Your task to perform on an android device: snooze an email in the gmail app Image 0: 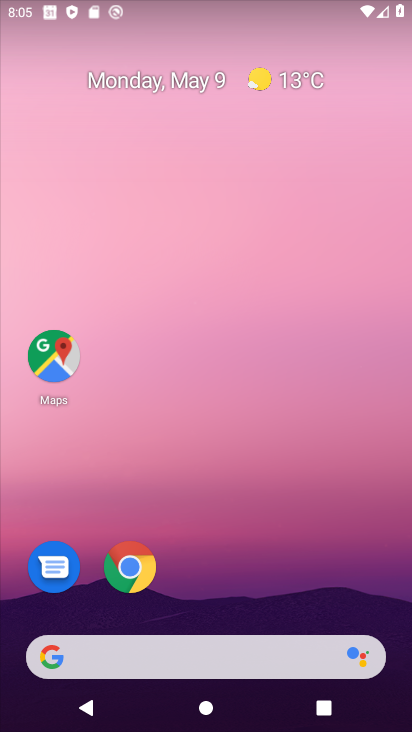
Step 0: drag from (251, 552) to (206, 47)
Your task to perform on an android device: snooze an email in the gmail app Image 1: 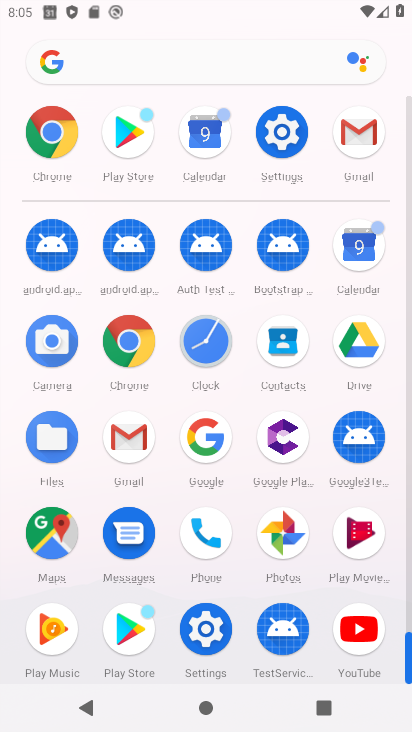
Step 1: click (360, 123)
Your task to perform on an android device: snooze an email in the gmail app Image 2: 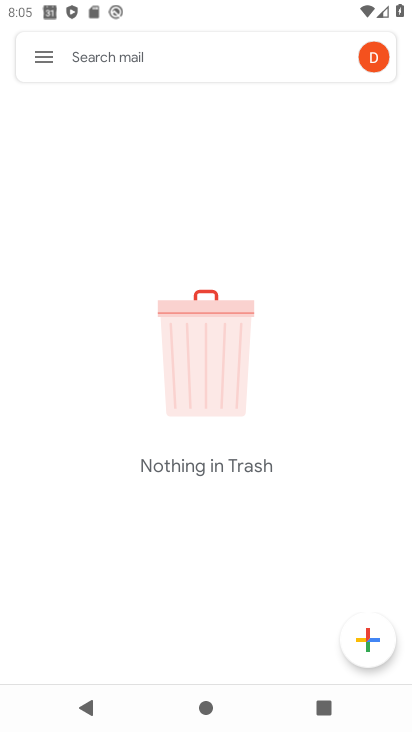
Step 2: click (51, 51)
Your task to perform on an android device: snooze an email in the gmail app Image 3: 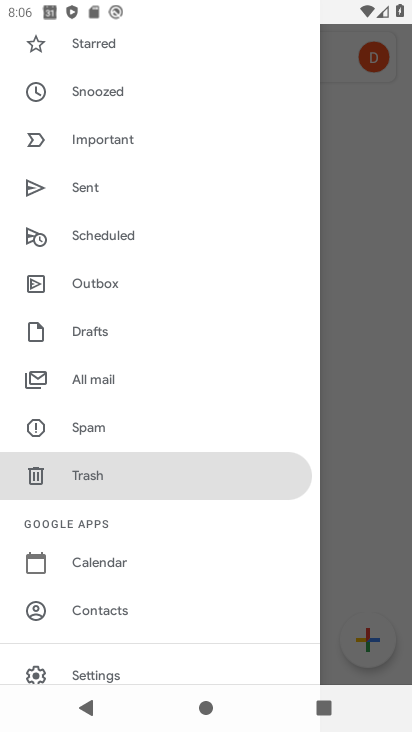
Step 3: click (136, 374)
Your task to perform on an android device: snooze an email in the gmail app Image 4: 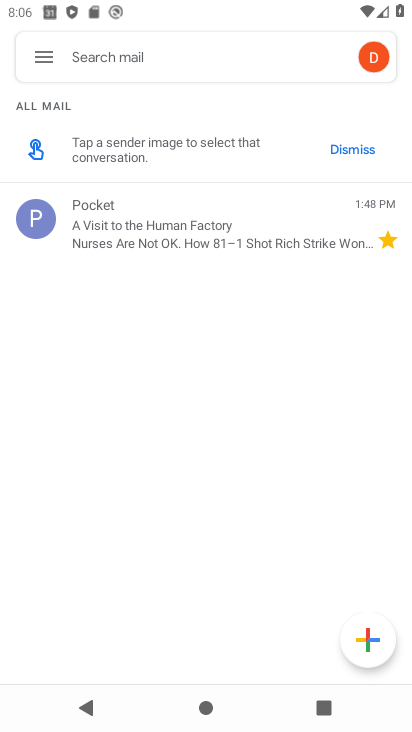
Step 4: click (231, 227)
Your task to perform on an android device: snooze an email in the gmail app Image 5: 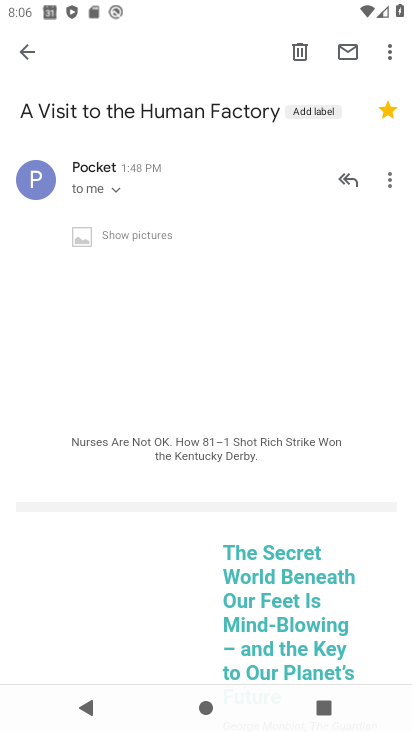
Step 5: click (389, 42)
Your task to perform on an android device: snooze an email in the gmail app Image 6: 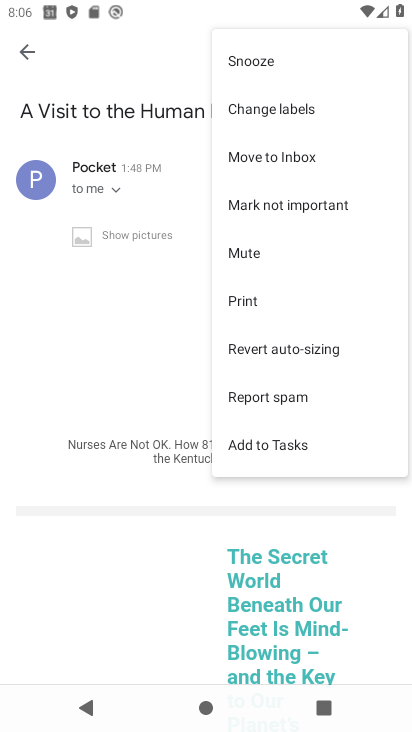
Step 6: click (296, 55)
Your task to perform on an android device: snooze an email in the gmail app Image 7: 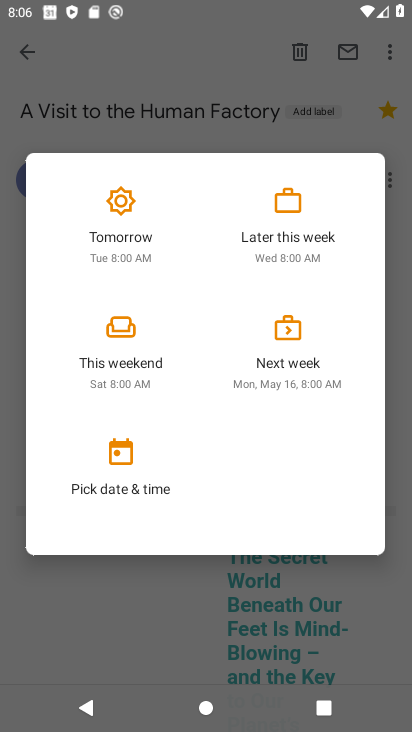
Step 7: click (134, 222)
Your task to perform on an android device: snooze an email in the gmail app Image 8: 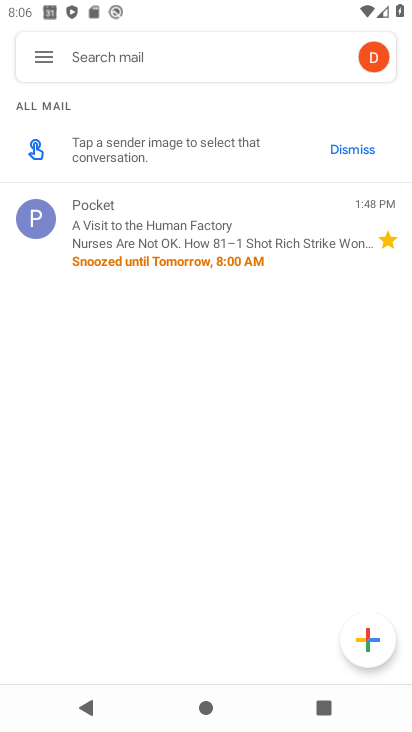
Step 8: task complete